Your task to perform on an android device: Open the phone app and click the voicemail tab. Image 0: 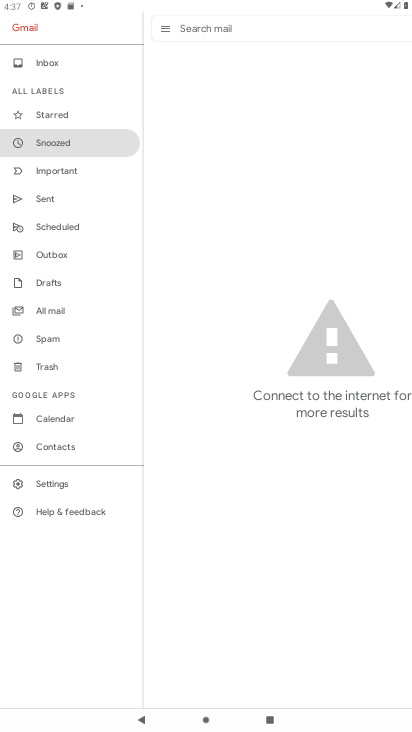
Step 0: press home button
Your task to perform on an android device: Open the phone app and click the voicemail tab. Image 1: 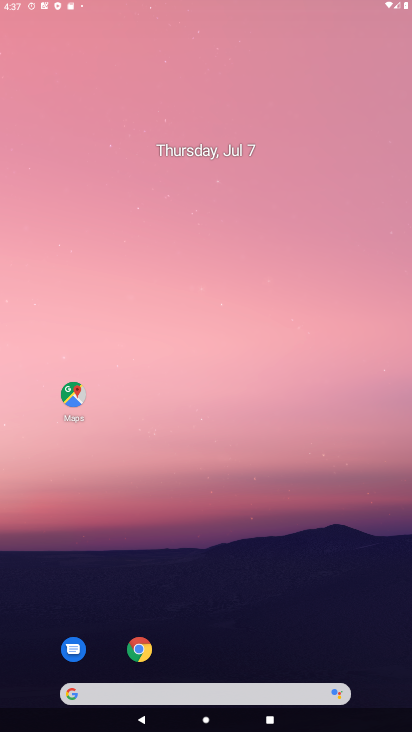
Step 1: drag from (389, 669) to (278, 66)
Your task to perform on an android device: Open the phone app and click the voicemail tab. Image 2: 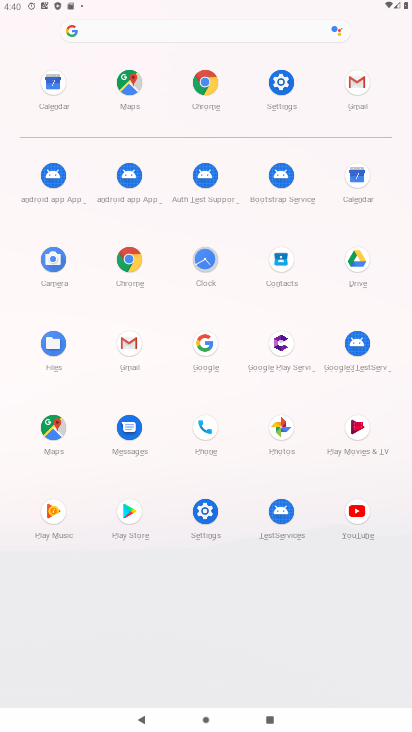
Step 2: click (199, 441)
Your task to perform on an android device: Open the phone app and click the voicemail tab. Image 3: 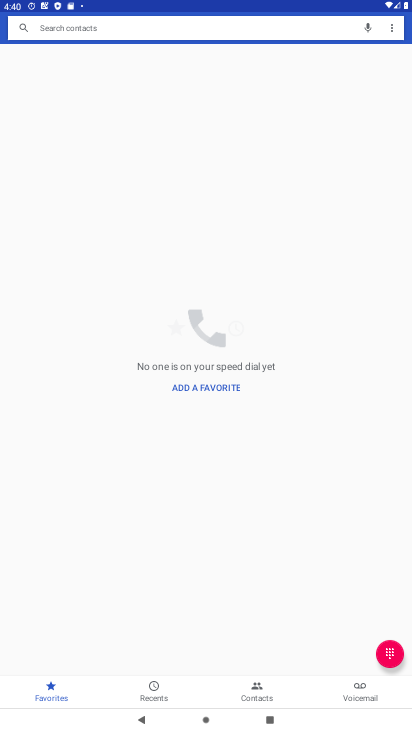
Step 3: click (359, 683)
Your task to perform on an android device: Open the phone app and click the voicemail tab. Image 4: 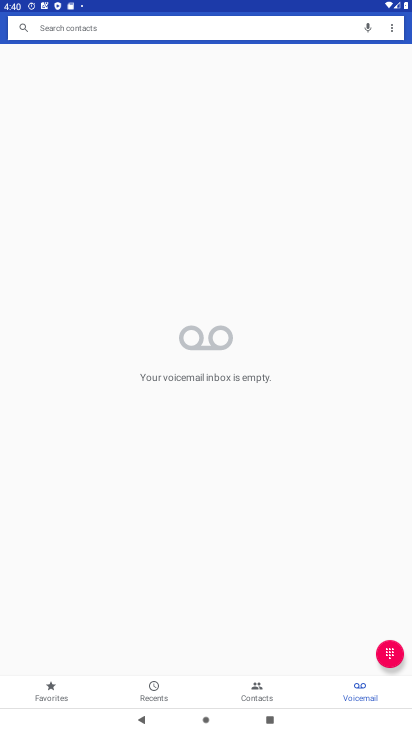
Step 4: task complete